Your task to perform on an android device: toggle improve location accuracy Image 0: 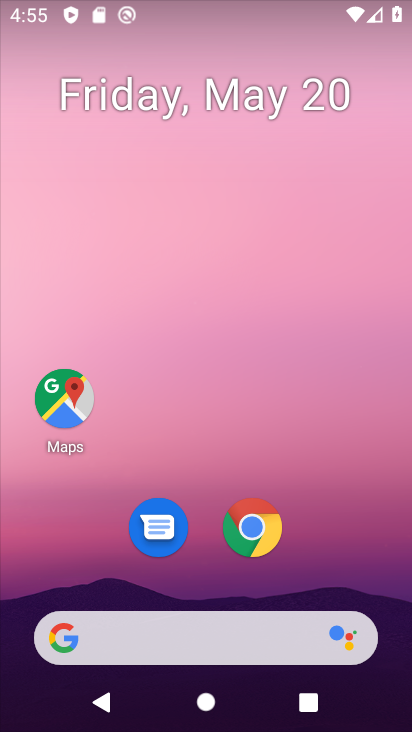
Step 0: drag from (195, 598) to (179, 56)
Your task to perform on an android device: toggle improve location accuracy Image 1: 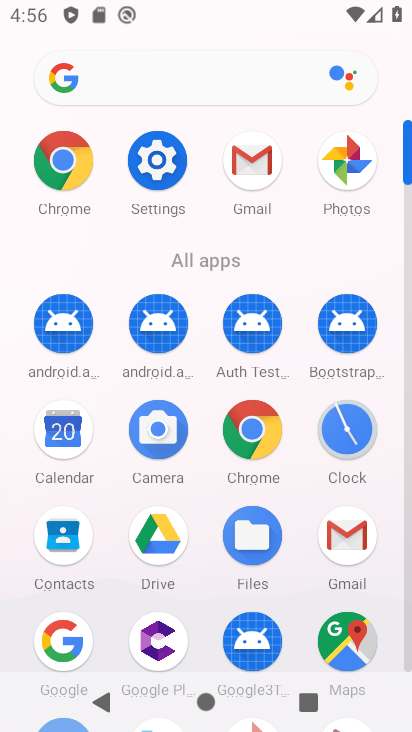
Step 1: click (149, 173)
Your task to perform on an android device: toggle improve location accuracy Image 2: 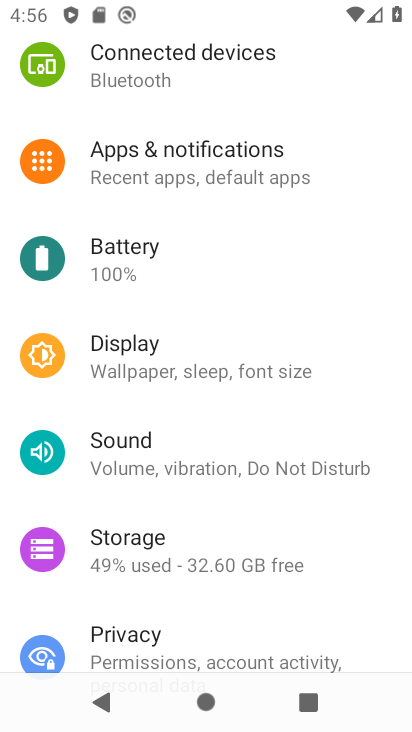
Step 2: drag from (173, 610) to (160, 123)
Your task to perform on an android device: toggle improve location accuracy Image 3: 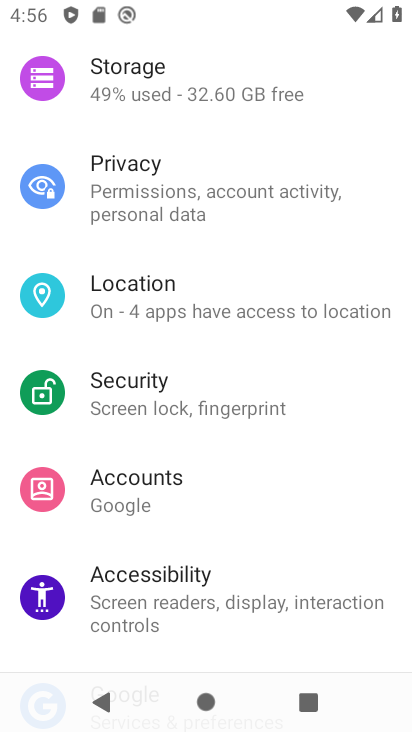
Step 3: click (155, 293)
Your task to perform on an android device: toggle improve location accuracy Image 4: 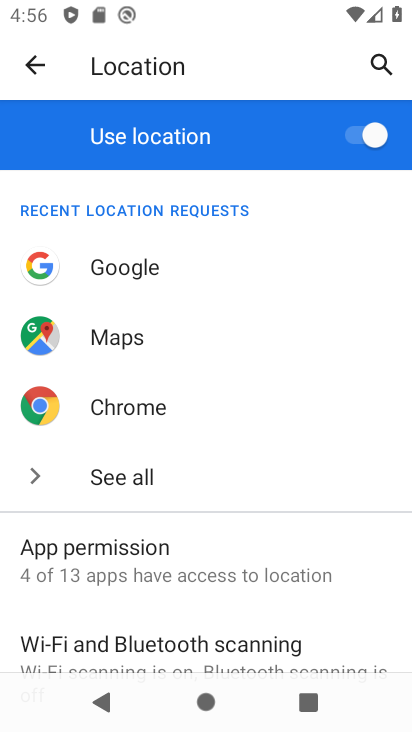
Step 4: drag from (257, 653) to (280, 154)
Your task to perform on an android device: toggle improve location accuracy Image 5: 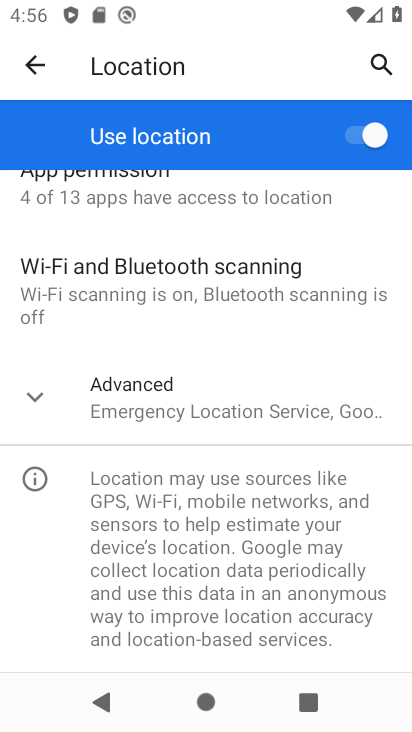
Step 5: click (217, 389)
Your task to perform on an android device: toggle improve location accuracy Image 6: 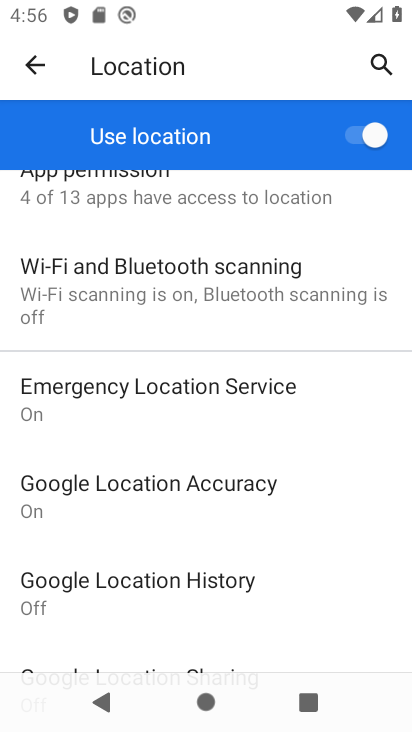
Step 6: click (242, 486)
Your task to perform on an android device: toggle improve location accuracy Image 7: 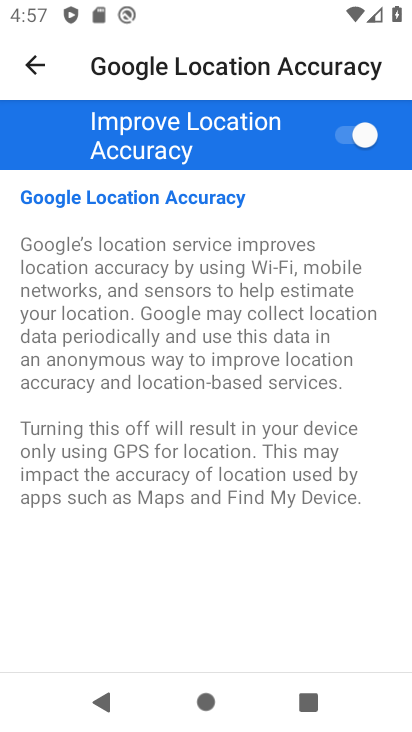
Step 7: click (344, 134)
Your task to perform on an android device: toggle improve location accuracy Image 8: 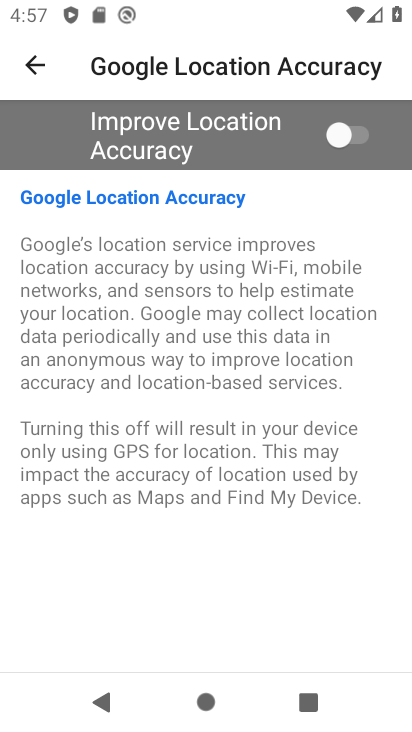
Step 8: task complete